Your task to perform on an android device: turn on the 12-hour format for clock Image 0: 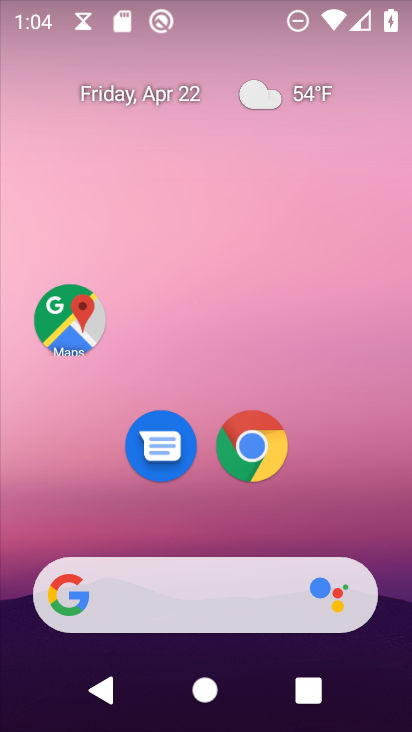
Step 0: drag from (373, 515) to (320, 205)
Your task to perform on an android device: turn on the 12-hour format for clock Image 1: 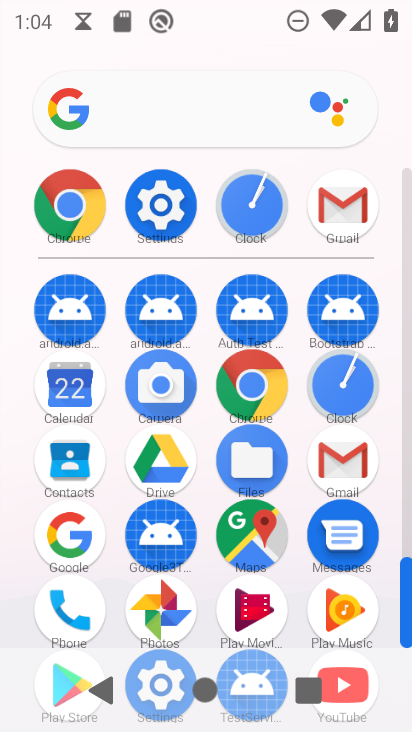
Step 1: click (350, 367)
Your task to perform on an android device: turn on the 12-hour format for clock Image 2: 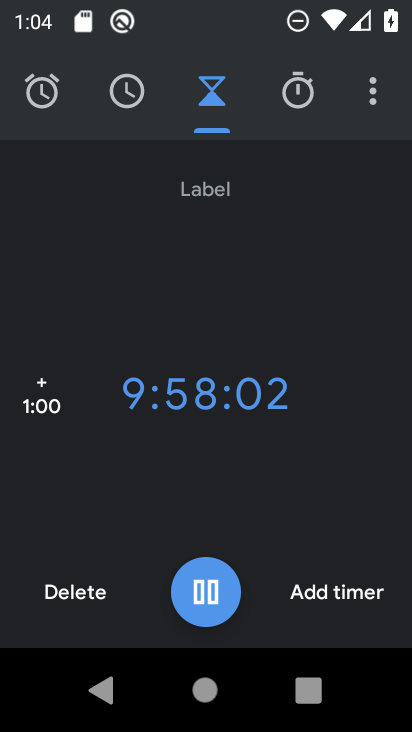
Step 2: click (374, 100)
Your task to perform on an android device: turn on the 12-hour format for clock Image 3: 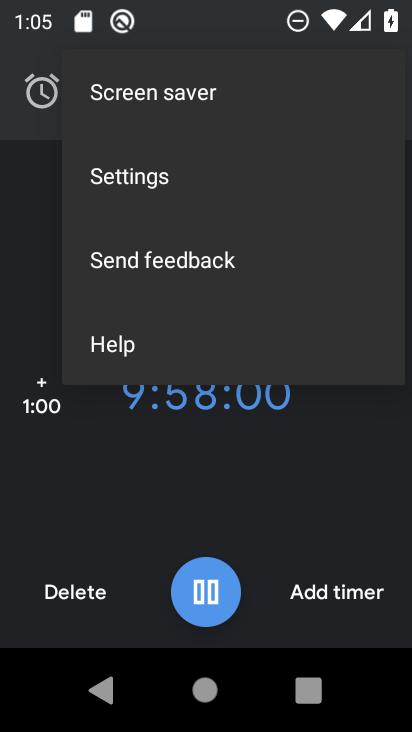
Step 3: click (300, 182)
Your task to perform on an android device: turn on the 12-hour format for clock Image 4: 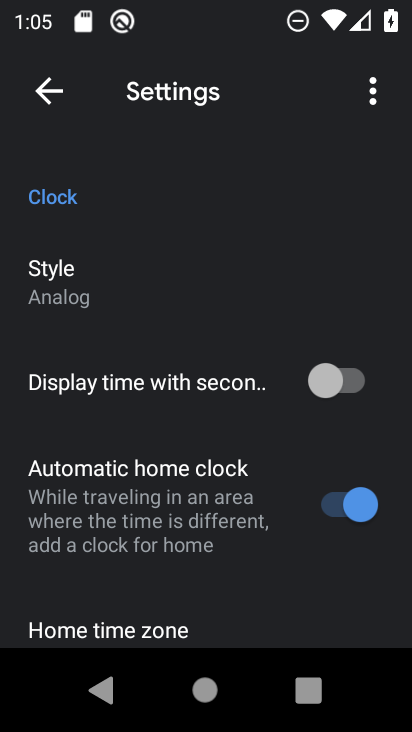
Step 4: drag from (286, 534) to (219, 99)
Your task to perform on an android device: turn on the 12-hour format for clock Image 5: 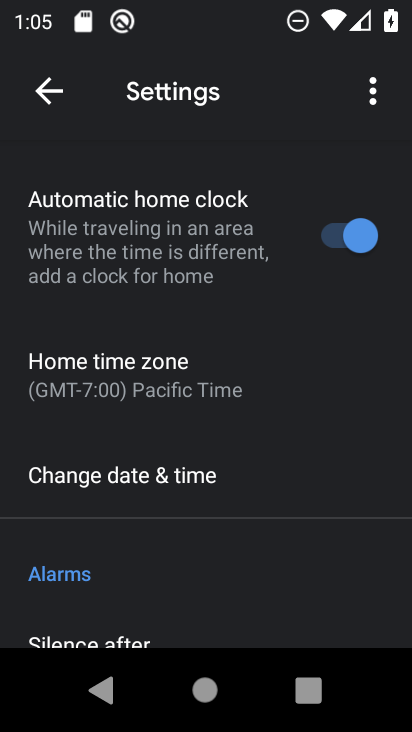
Step 5: click (265, 477)
Your task to perform on an android device: turn on the 12-hour format for clock Image 6: 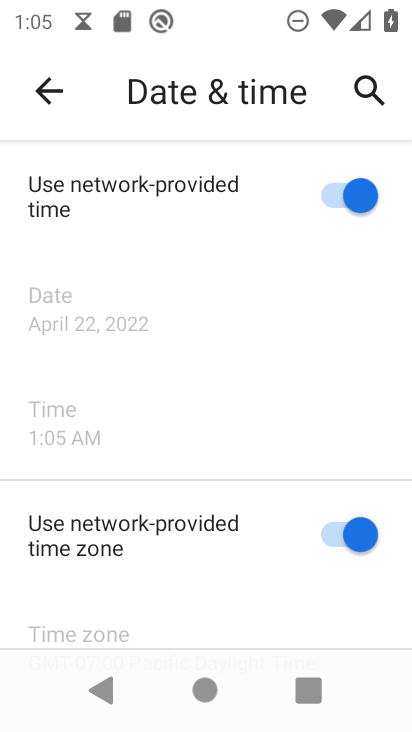
Step 6: task complete